Your task to perform on an android device: turn pop-ups on in chrome Image 0: 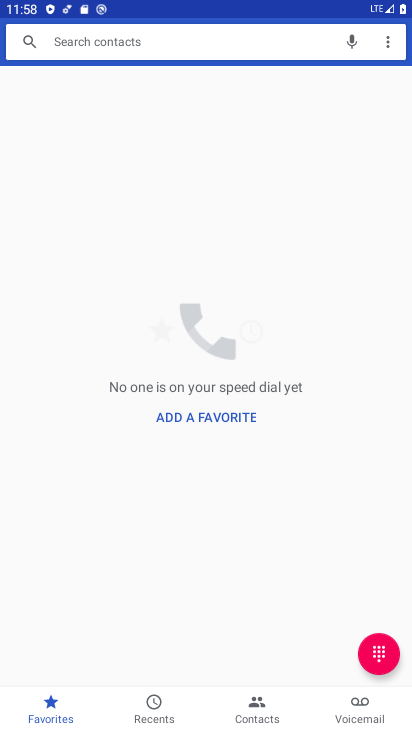
Step 0: press home button
Your task to perform on an android device: turn pop-ups on in chrome Image 1: 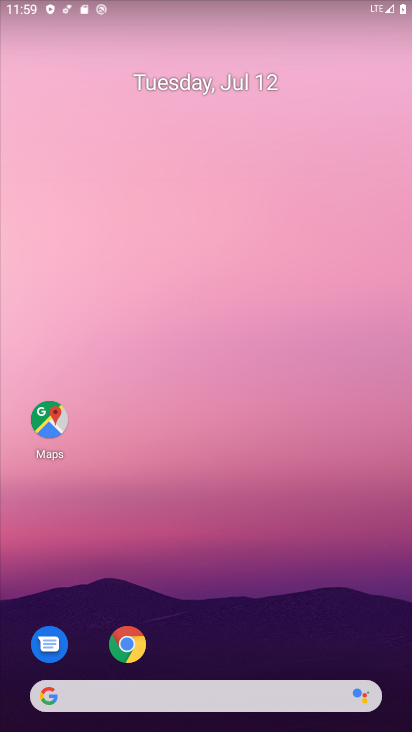
Step 1: click (134, 645)
Your task to perform on an android device: turn pop-ups on in chrome Image 2: 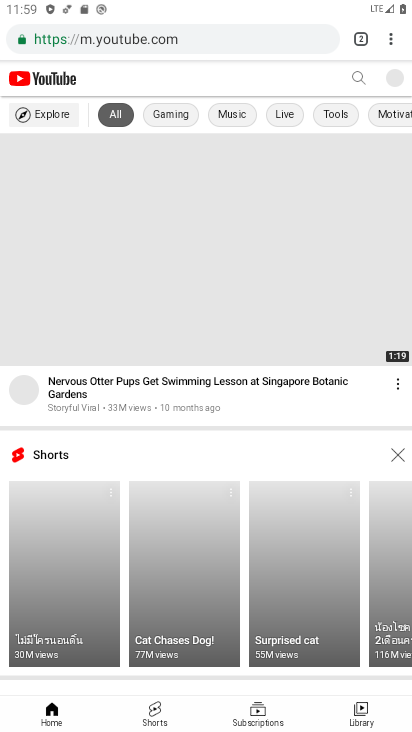
Step 2: press home button
Your task to perform on an android device: turn pop-ups on in chrome Image 3: 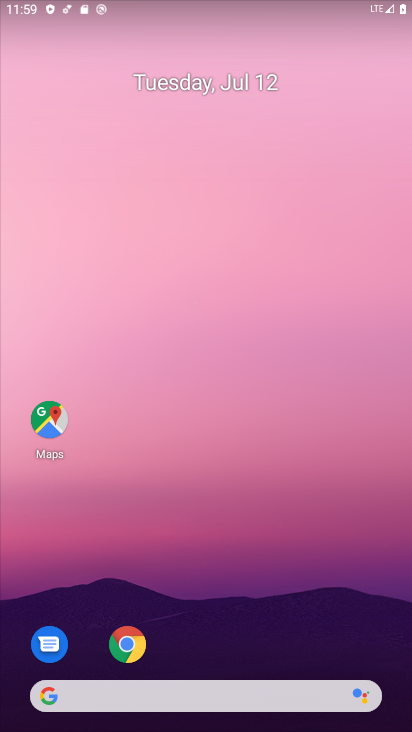
Step 3: click (124, 641)
Your task to perform on an android device: turn pop-ups on in chrome Image 4: 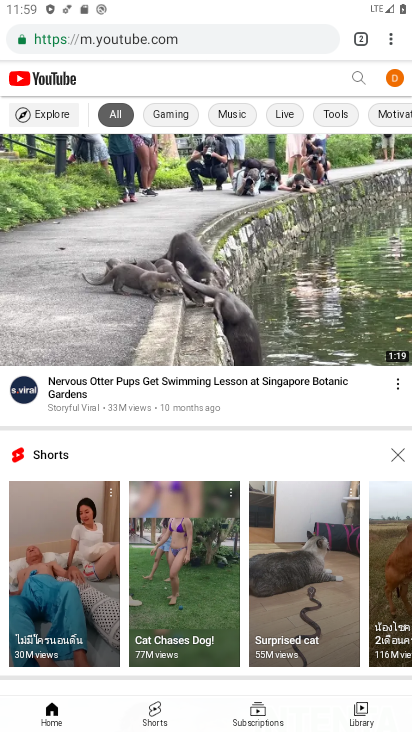
Step 4: click (382, 41)
Your task to perform on an android device: turn pop-ups on in chrome Image 5: 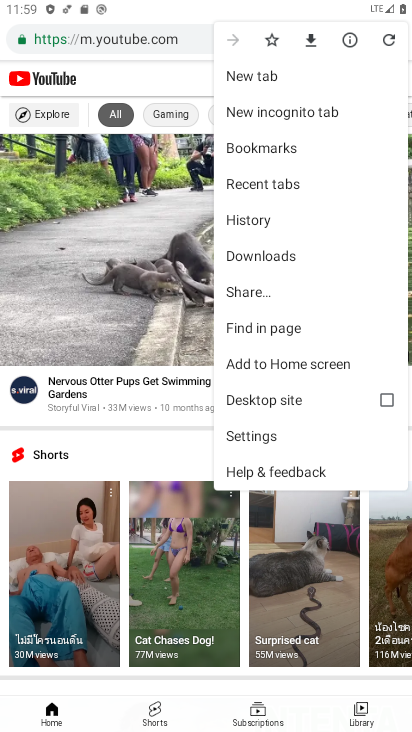
Step 5: click (264, 438)
Your task to perform on an android device: turn pop-ups on in chrome Image 6: 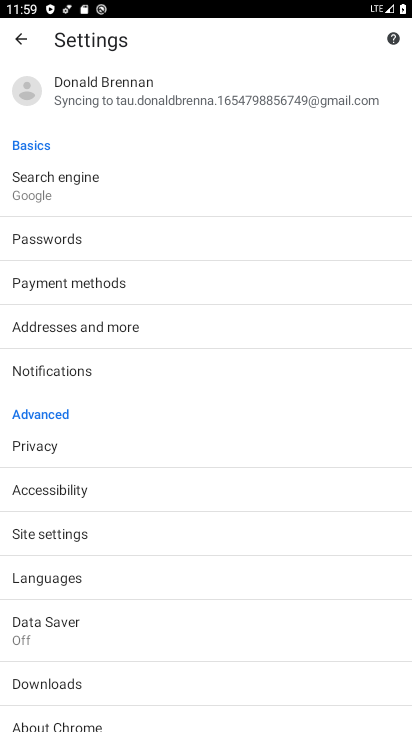
Step 6: click (56, 524)
Your task to perform on an android device: turn pop-ups on in chrome Image 7: 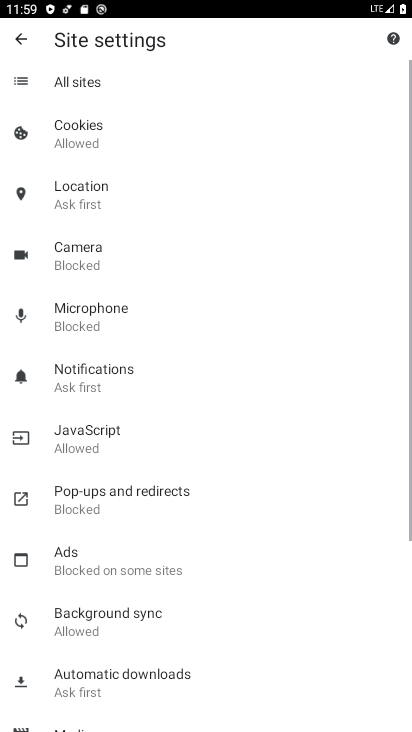
Step 7: click (116, 500)
Your task to perform on an android device: turn pop-ups on in chrome Image 8: 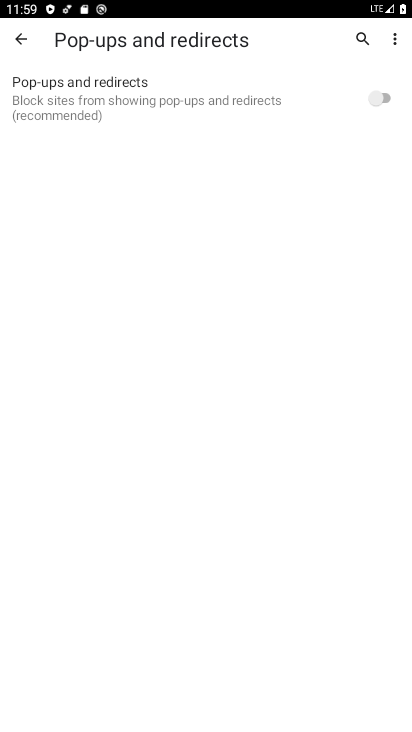
Step 8: click (383, 93)
Your task to perform on an android device: turn pop-ups on in chrome Image 9: 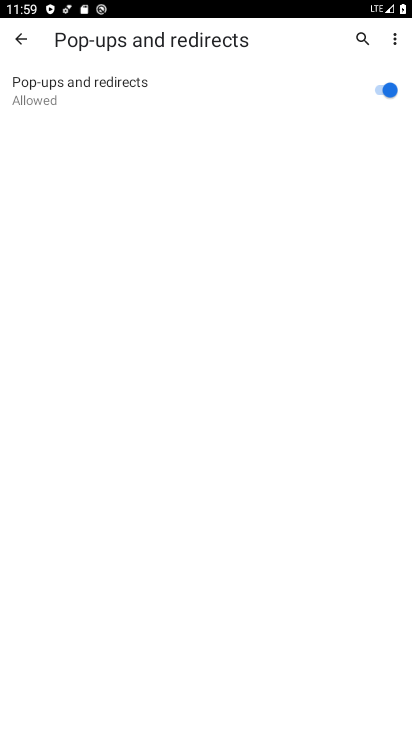
Step 9: task complete